Your task to perform on an android device: open app "LiveIn - Share Your Moment" Image 0: 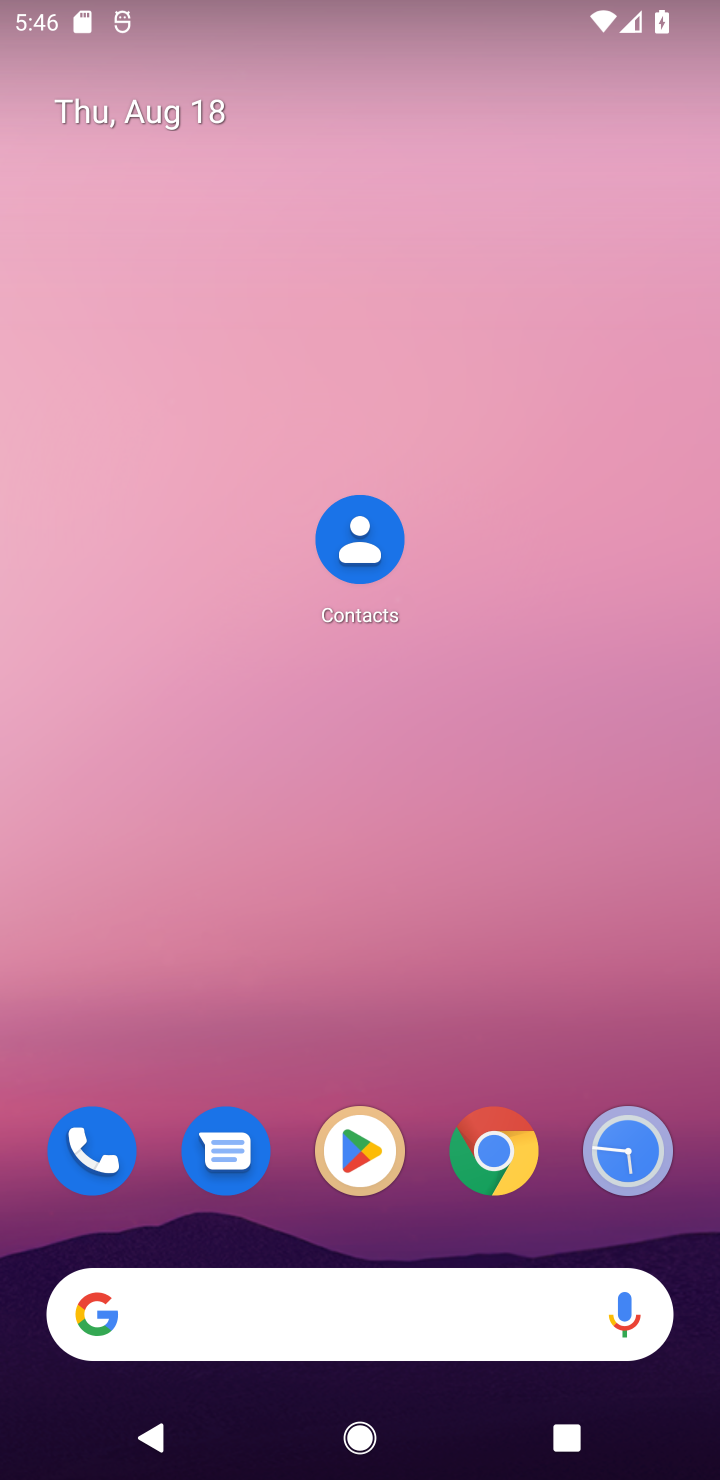
Step 0: click (340, 1185)
Your task to perform on an android device: open app "LiveIn - Share Your Moment" Image 1: 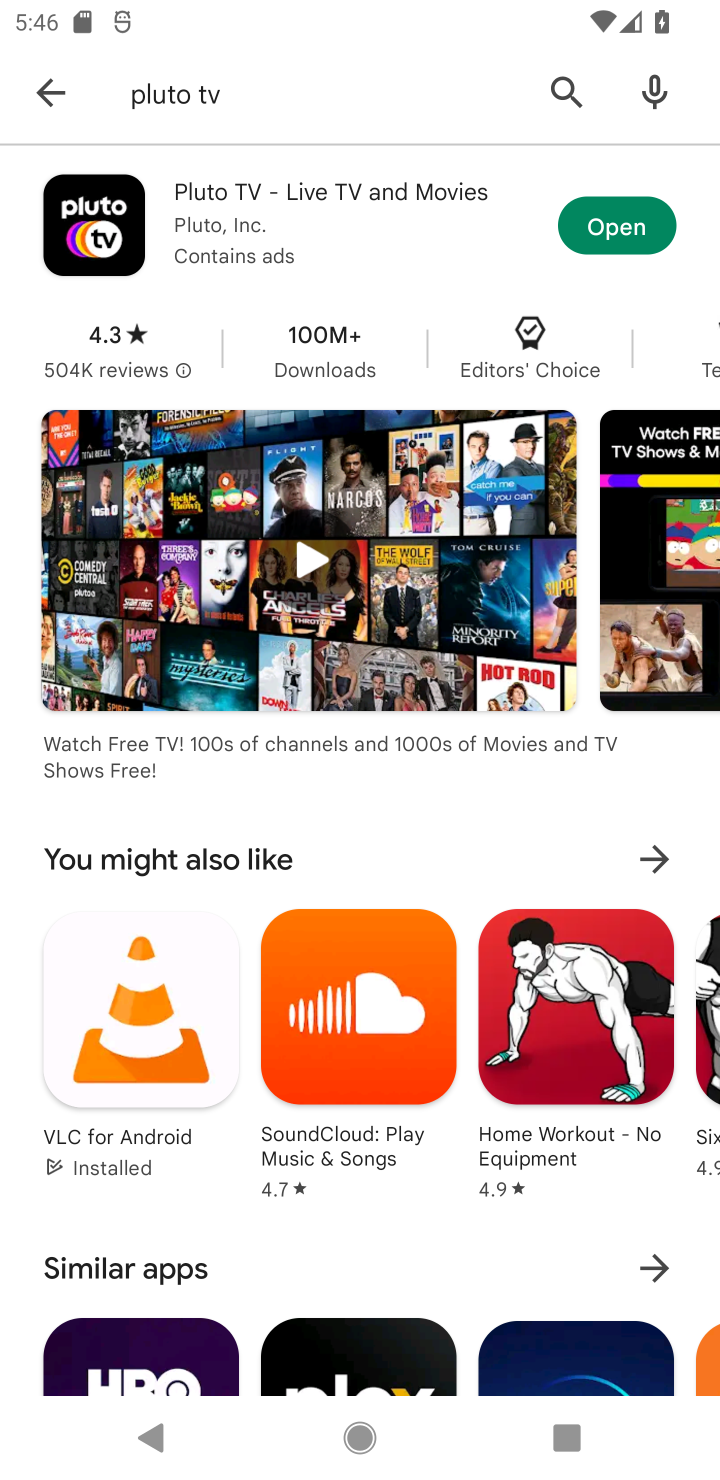
Step 1: click (559, 115)
Your task to perform on an android device: open app "LiveIn - Share Your Moment" Image 2: 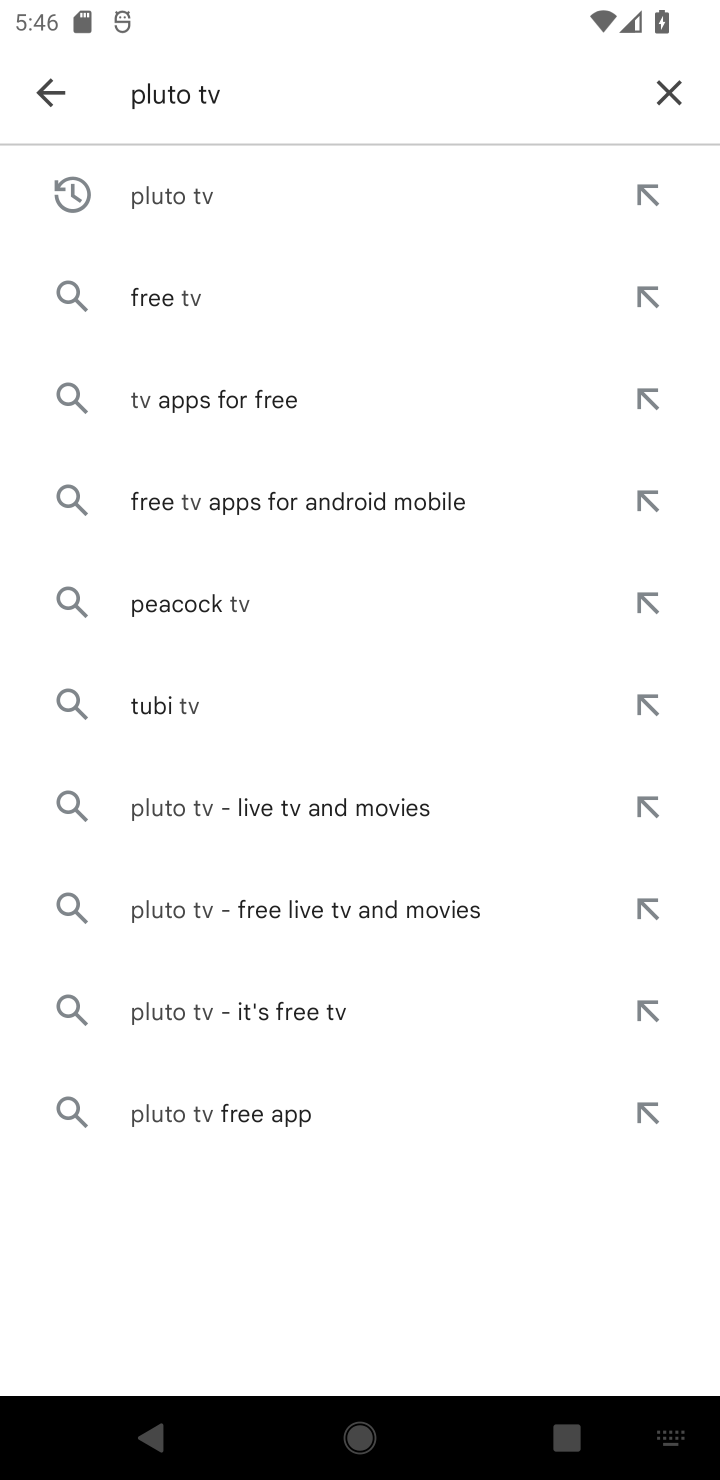
Step 2: click (659, 93)
Your task to perform on an android device: open app "LiveIn - Share Your Moment" Image 3: 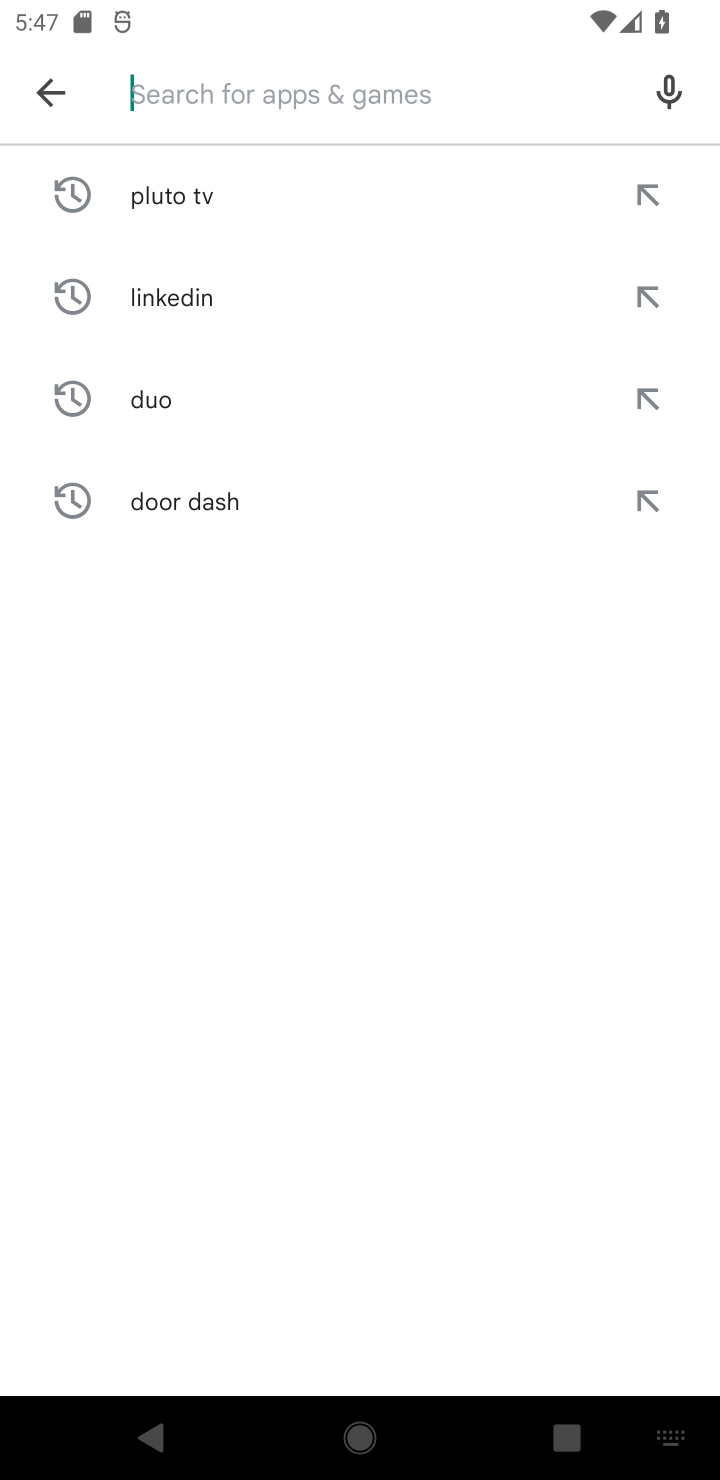
Step 3: type "livein"
Your task to perform on an android device: open app "LiveIn - Share Your Moment" Image 4: 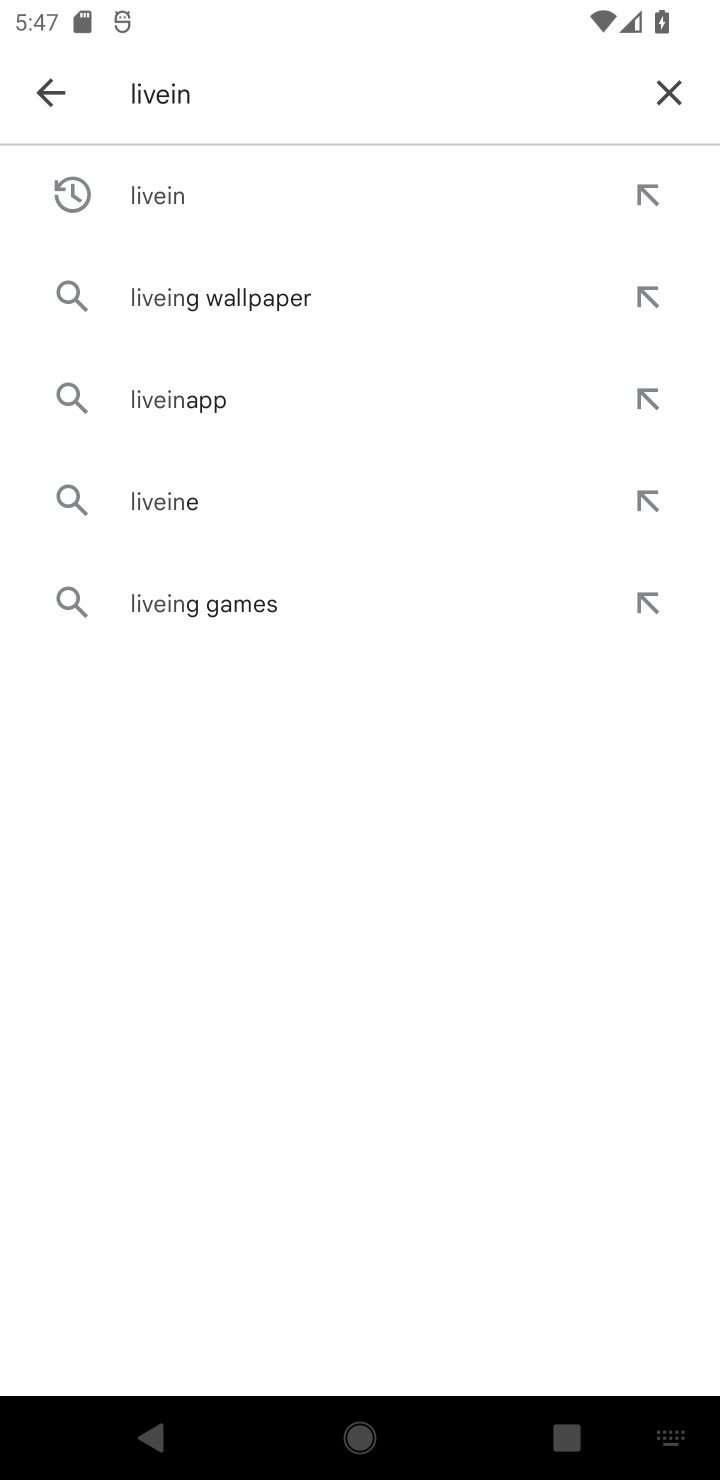
Step 4: click (205, 230)
Your task to perform on an android device: open app "LiveIn - Share Your Moment" Image 5: 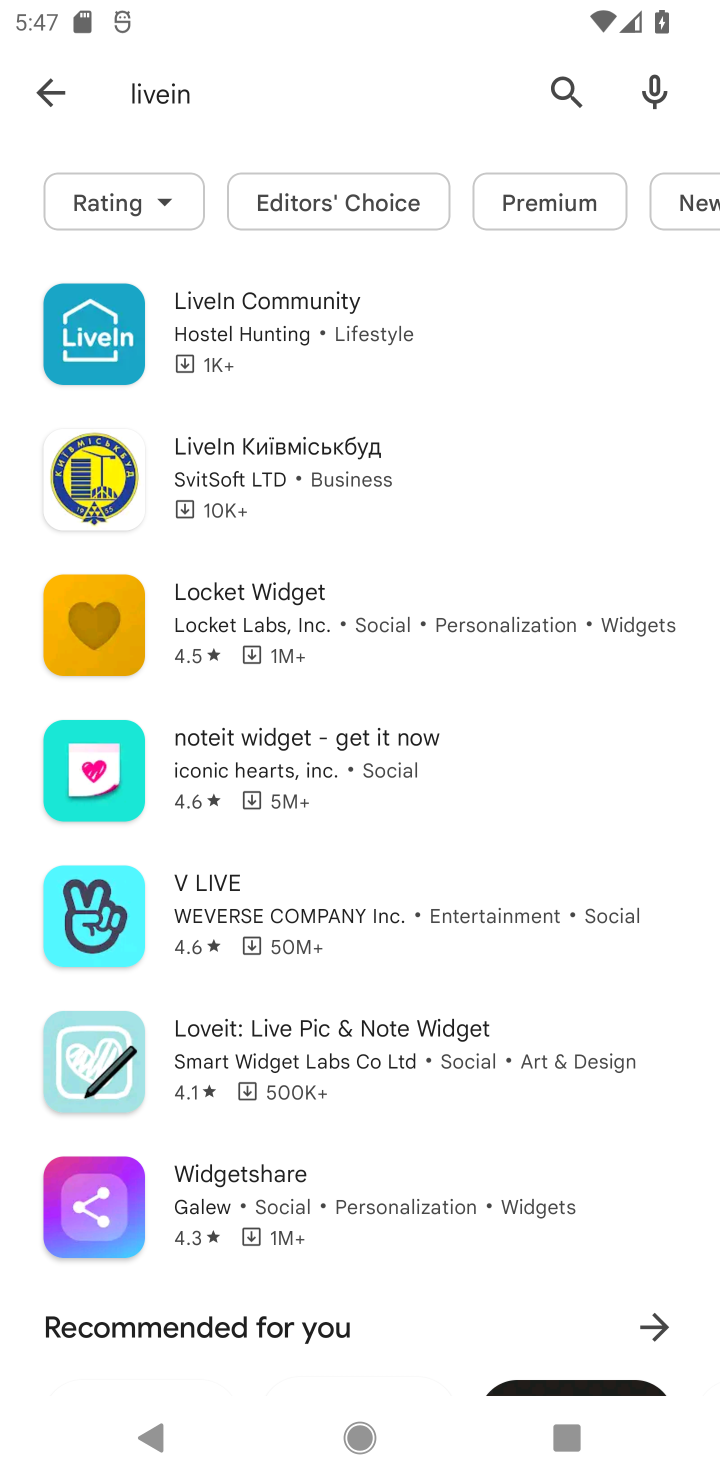
Step 5: click (488, 298)
Your task to perform on an android device: open app "LiveIn - Share Your Moment" Image 6: 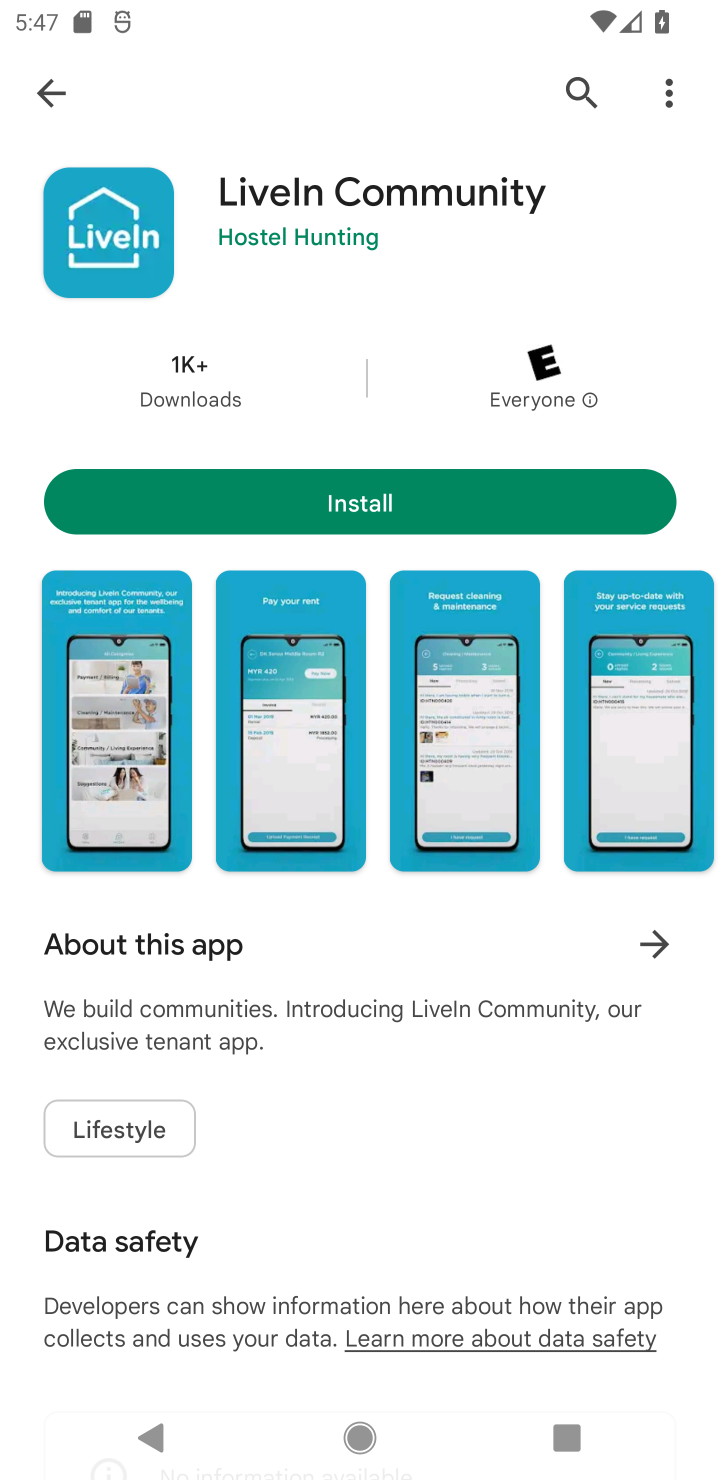
Step 6: click (525, 468)
Your task to perform on an android device: open app "LiveIn - Share Your Moment" Image 7: 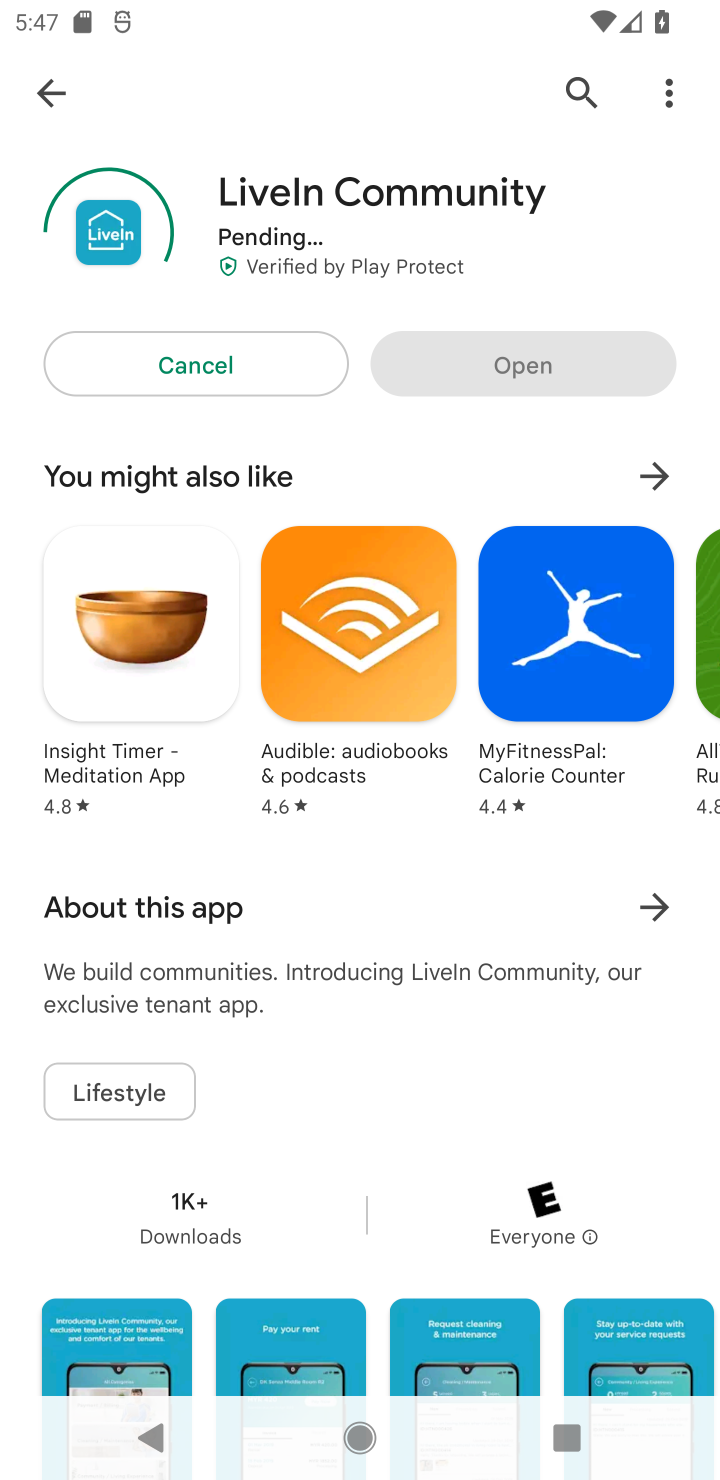
Step 7: task complete